Your task to perform on an android device: Open battery settings Image 0: 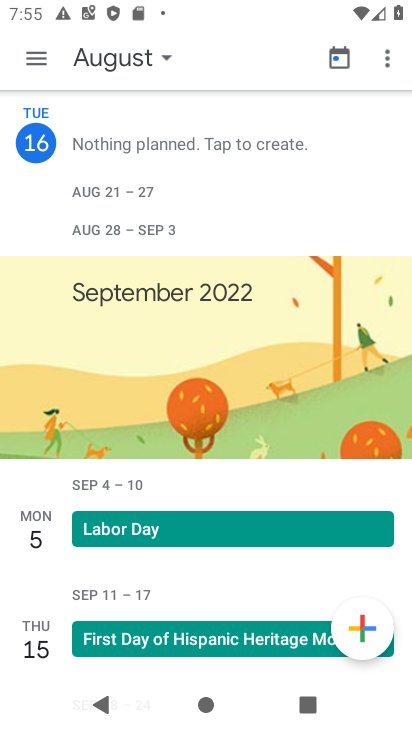
Step 0: press home button
Your task to perform on an android device: Open battery settings Image 1: 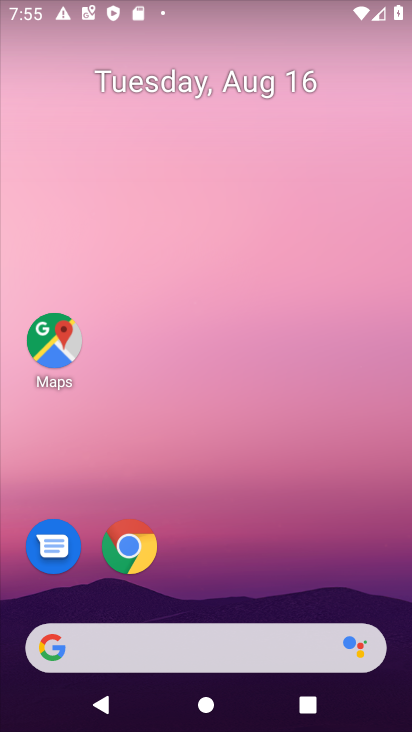
Step 1: drag from (197, 540) to (171, 32)
Your task to perform on an android device: Open battery settings Image 2: 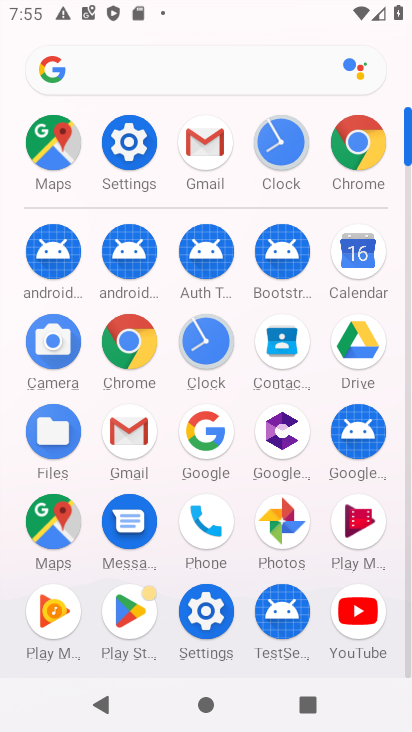
Step 2: click (124, 141)
Your task to perform on an android device: Open battery settings Image 3: 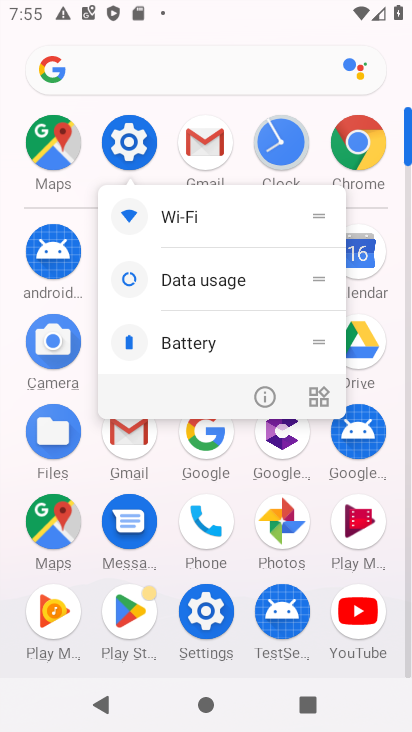
Step 3: click (124, 132)
Your task to perform on an android device: Open battery settings Image 4: 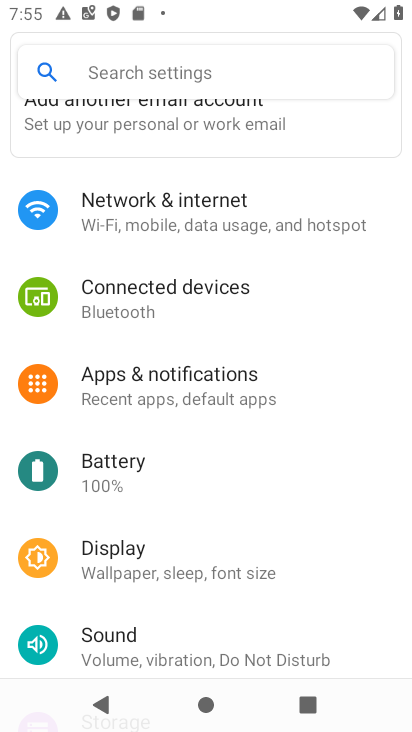
Step 4: click (156, 476)
Your task to perform on an android device: Open battery settings Image 5: 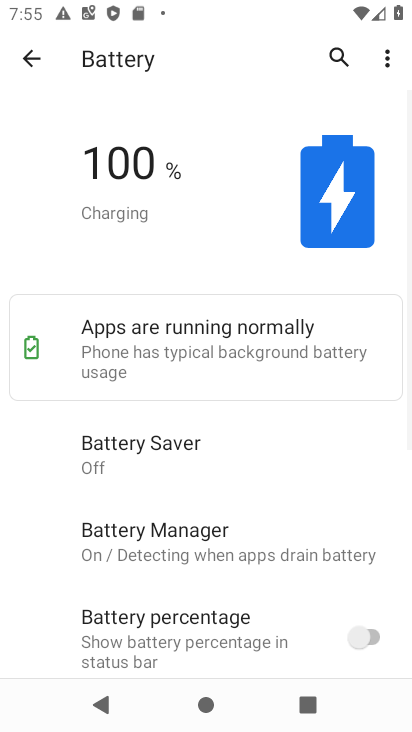
Step 5: task complete